Your task to perform on an android device: Open maps Image 0: 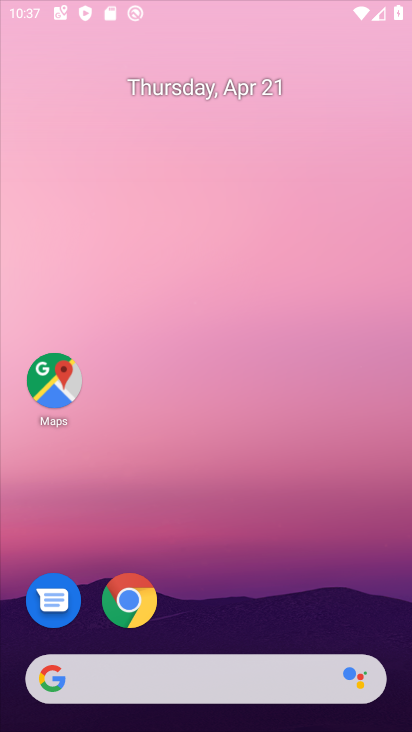
Step 0: drag from (360, 232) to (371, 77)
Your task to perform on an android device: Open maps Image 1: 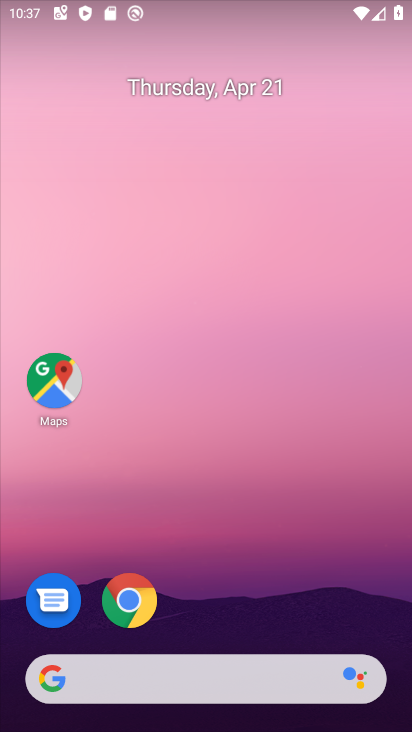
Step 1: drag from (309, 579) to (348, 254)
Your task to perform on an android device: Open maps Image 2: 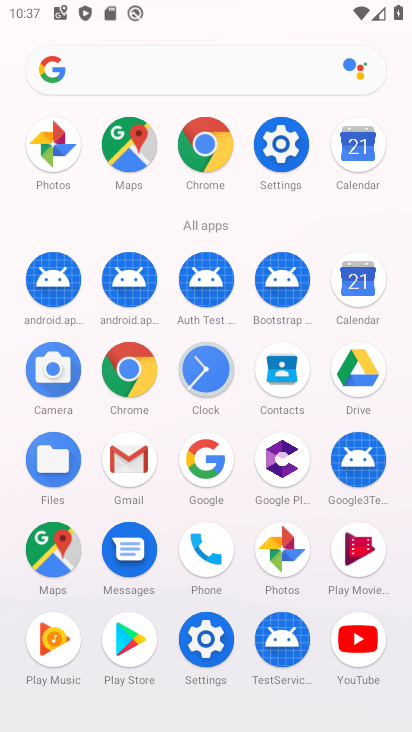
Step 2: click (98, 123)
Your task to perform on an android device: Open maps Image 3: 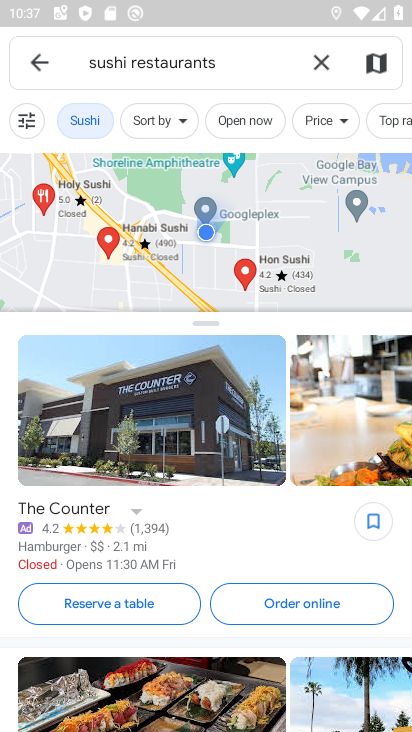
Step 3: task complete